Your task to perform on an android device: change alarm snooze length Image 0: 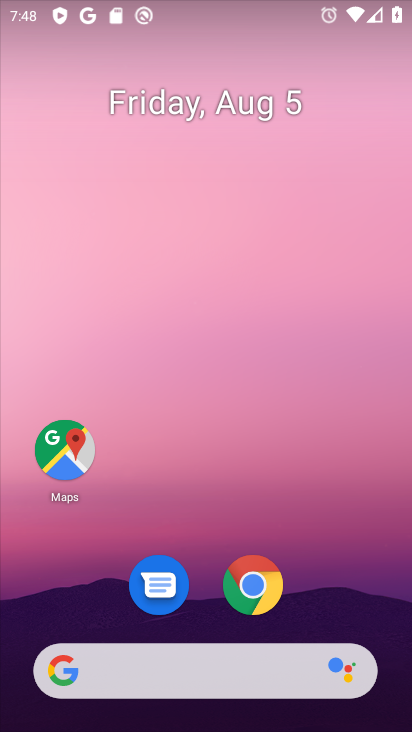
Step 0: drag from (330, 596) to (296, 33)
Your task to perform on an android device: change alarm snooze length Image 1: 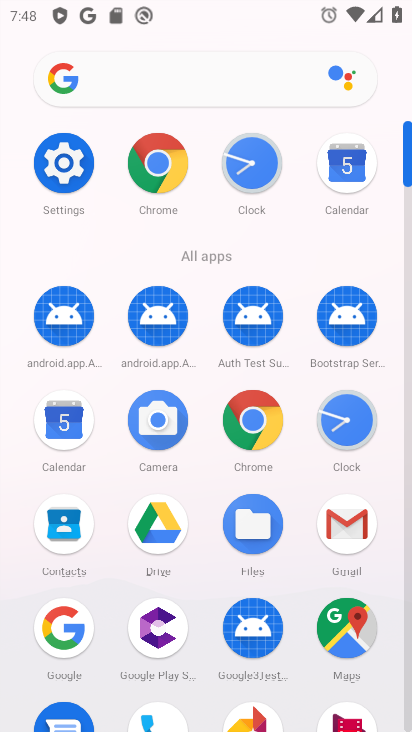
Step 1: click (272, 172)
Your task to perform on an android device: change alarm snooze length Image 2: 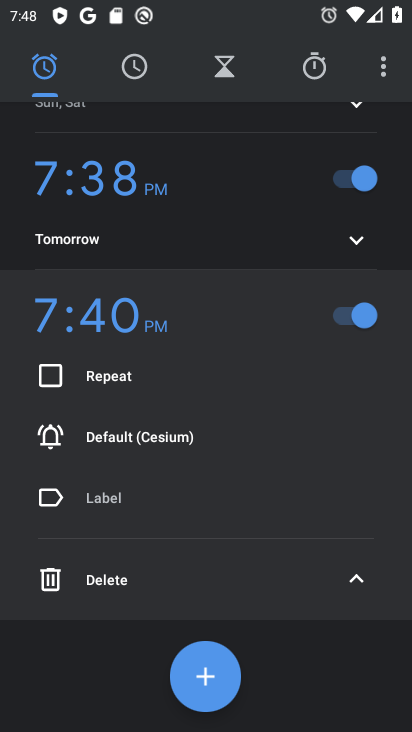
Step 2: click (390, 62)
Your task to perform on an android device: change alarm snooze length Image 3: 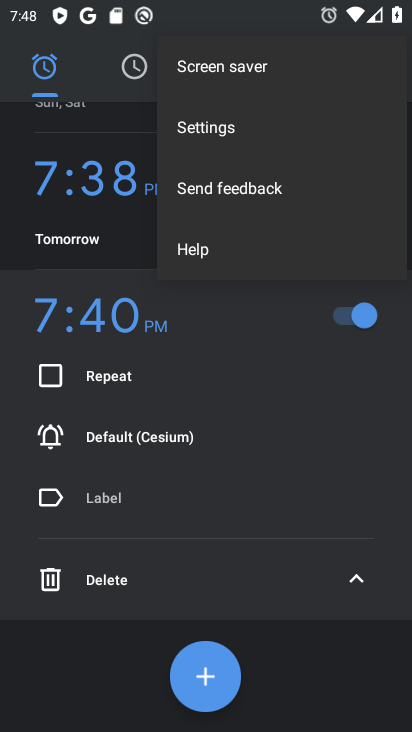
Step 3: click (290, 127)
Your task to perform on an android device: change alarm snooze length Image 4: 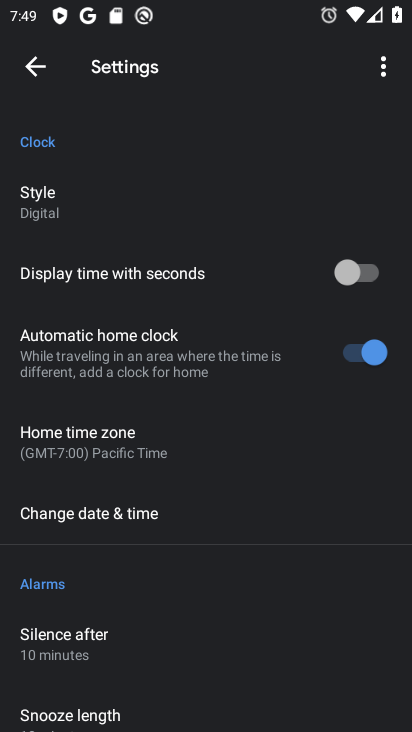
Step 4: drag from (192, 599) to (251, 331)
Your task to perform on an android device: change alarm snooze length Image 5: 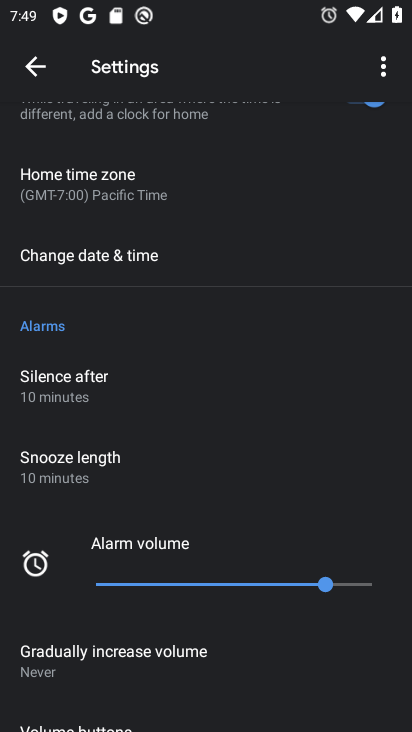
Step 5: click (104, 458)
Your task to perform on an android device: change alarm snooze length Image 6: 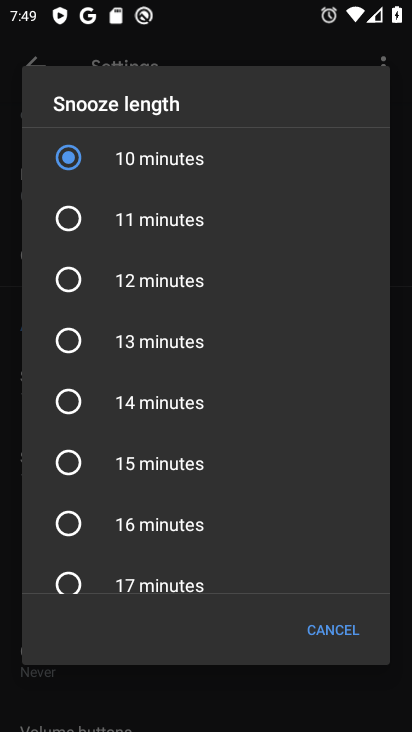
Step 6: click (62, 220)
Your task to perform on an android device: change alarm snooze length Image 7: 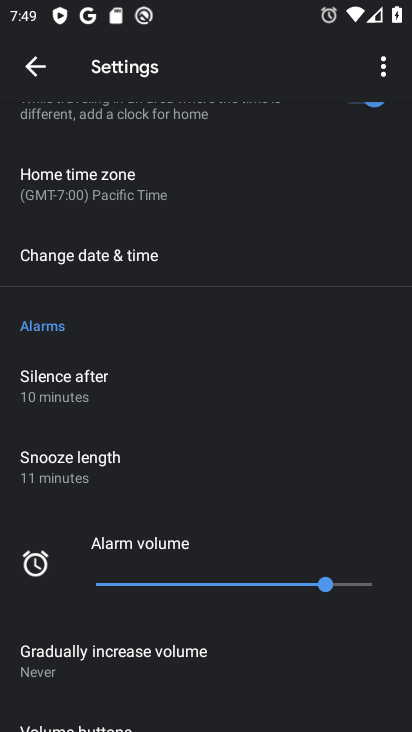
Step 7: task complete